Your task to perform on an android device: toggle translation in the chrome app Image 0: 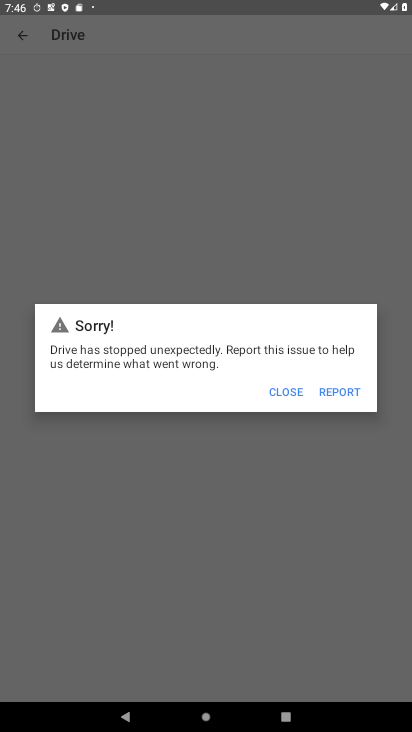
Step 0: press home button
Your task to perform on an android device: toggle translation in the chrome app Image 1: 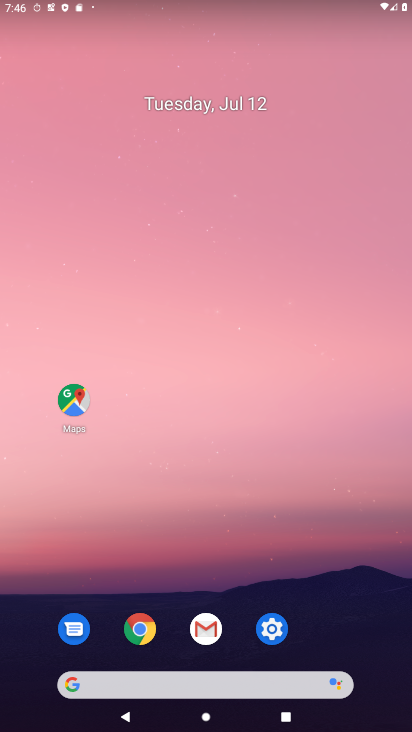
Step 1: click (152, 638)
Your task to perform on an android device: toggle translation in the chrome app Image 2: 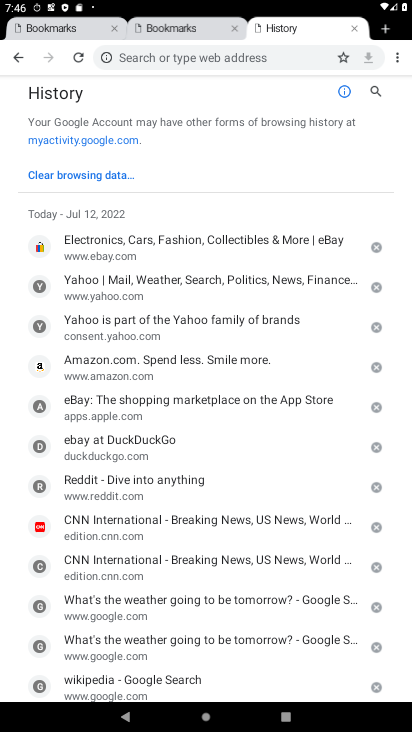
Step 2: click (393, 64)
Your task to perform on an android device: toggle translation in the chrome app Image 3: 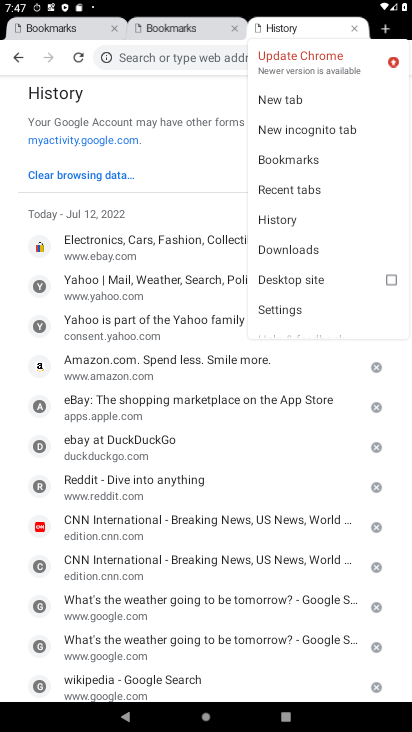
Step 3: click (278, 306)
Your task to perform on an android device: toggle translation in the chrome app Image 4: 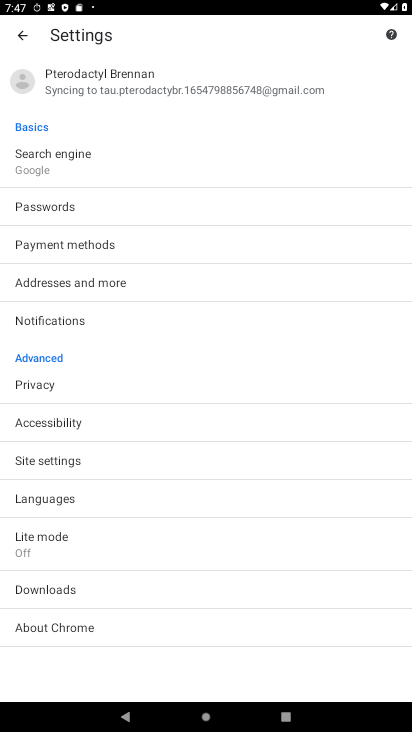
Step 4: click (87, 509)
Your task to perform on an android device: toggle translation in the chrome app Image 5: 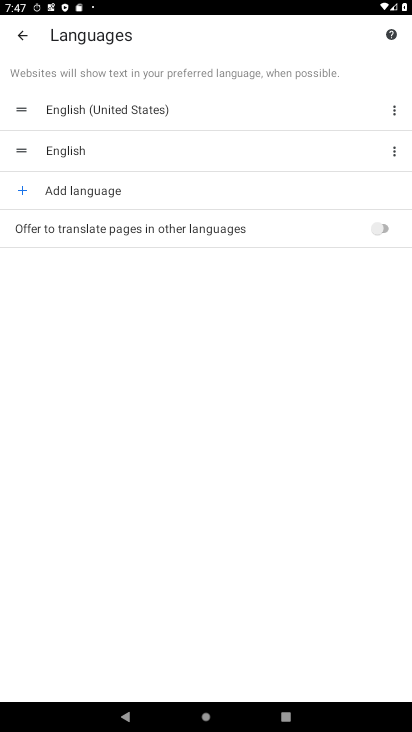
Step 5: task complete